Your task to perform on an android device: Open settings Image 0: 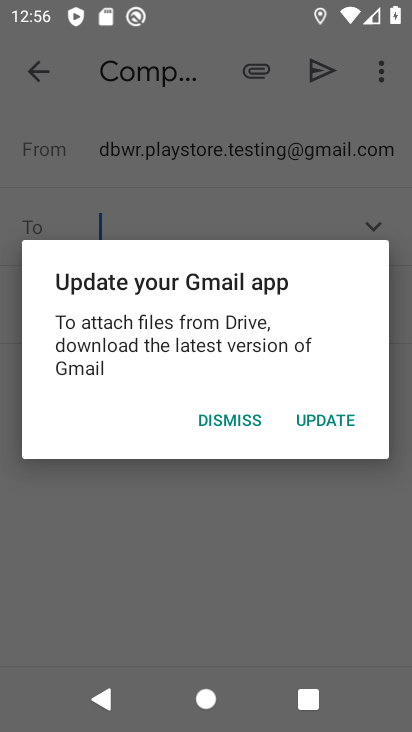
Step 0: press home button
Your task to perform on an android device: Open settings Image 1: 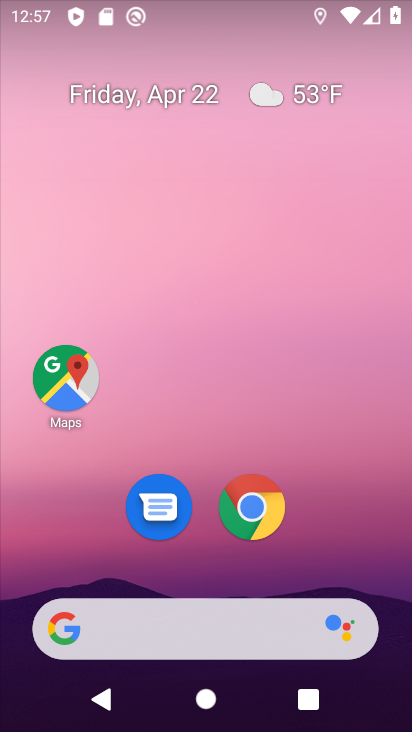
Step 1: drag from (323, 544) to (307, 91)
Your task to perform on an android device: Open settings Image 2: 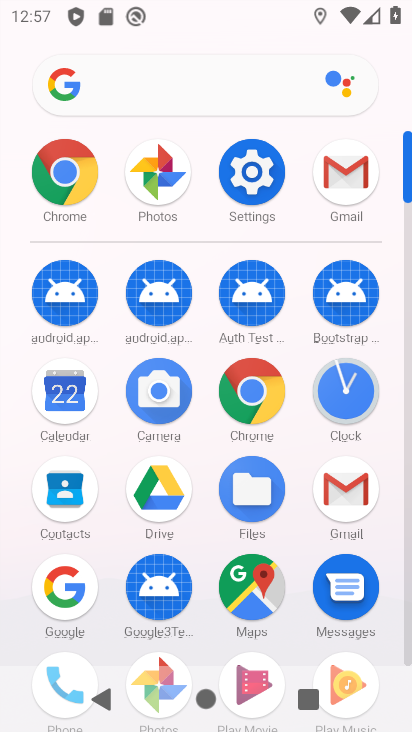
Step 2: click (254, 157)
Your task to perform on an android device: Open settings Image 3: 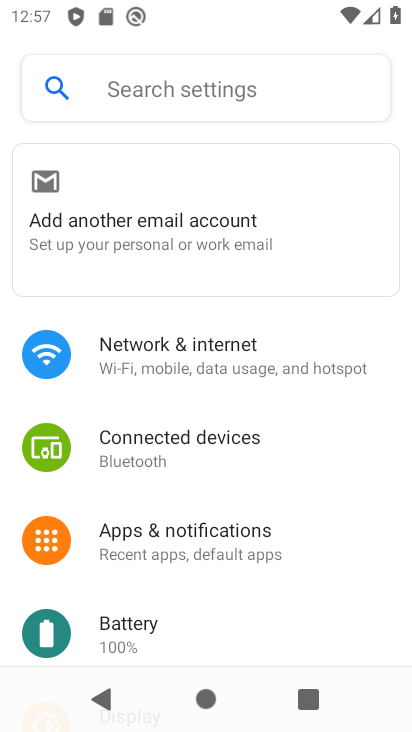
Step 3: task complete